Your task to perform on an android device: turn off location Image 0: 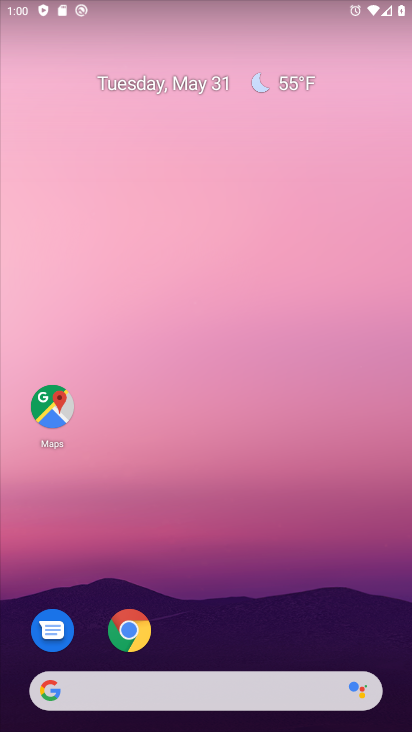
Step 0: drag from (297, 644) to (336, 238)
Your task to perform on an android device: turn off location Image 1: 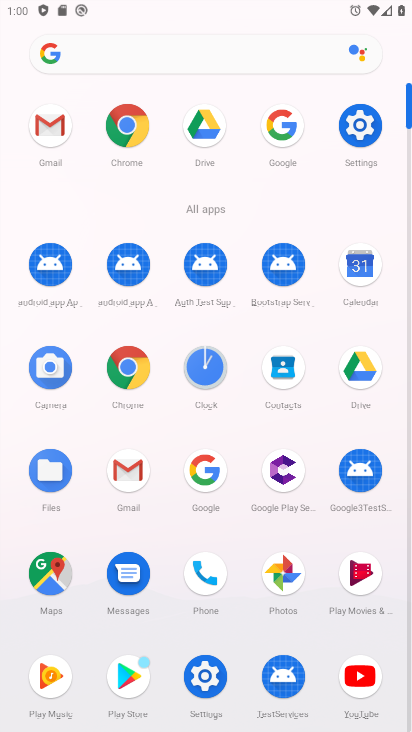
Step 1: click (362, 114)
Your task to perform on an android device: turn off location Image 2: 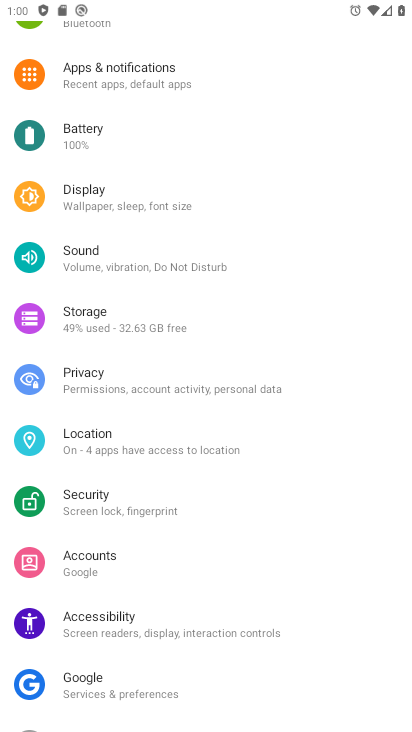
Step 2: click (115, 442)
Your task to perform on an android device: turn off location Image 3: 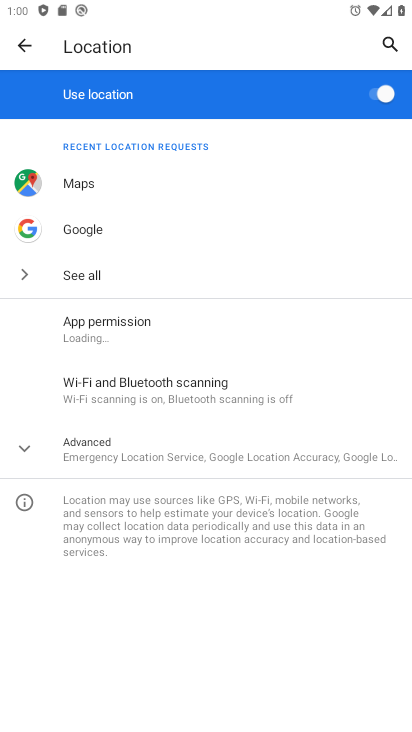
Step 3: click (378, 93)
Your task to perform on an android device: turn off location Image 4: 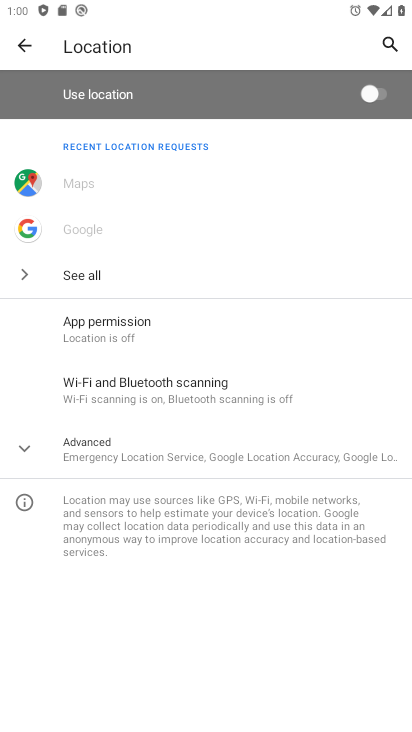
Step 4: task complete